Your task to perform on an android device: Open Amazon Image 0: 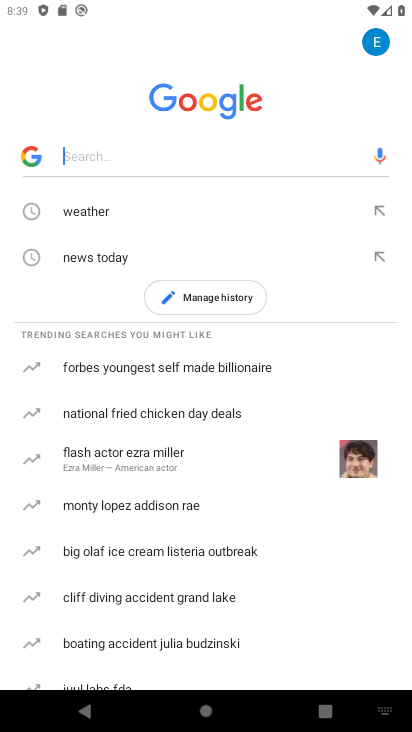
Step 0: press home button
Your task to perform on an android device: Open Amazon Image 1: 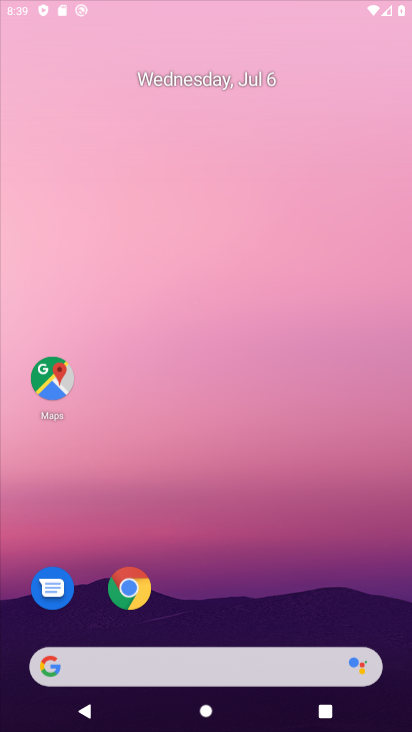
Step 1: drag from (214, 591) to (265, 115)
Your task to perform on an android device: Open Amazon Image 2: 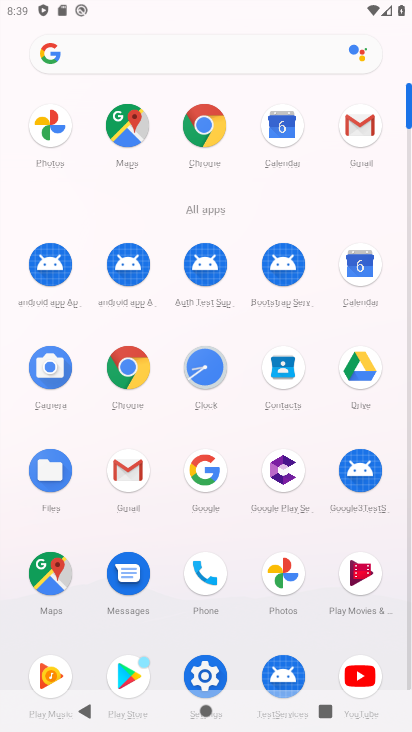
Step 2: click (198, 129)
Your task to perform on an android device: Open Amazon Image 3: 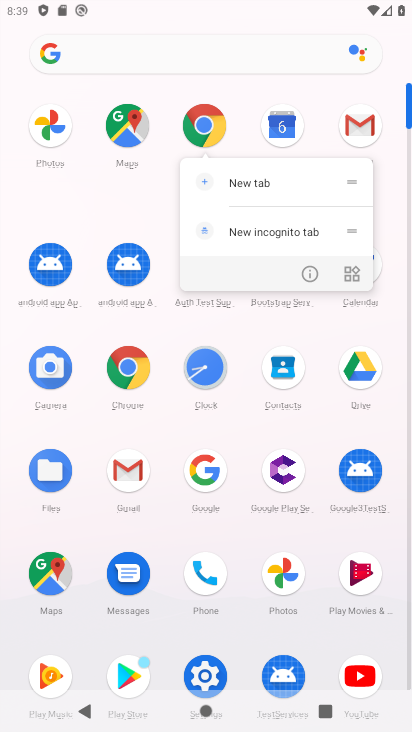
Step 3: click (313, 267)
Your task to perform on an android device: Open Amazon Image 4: 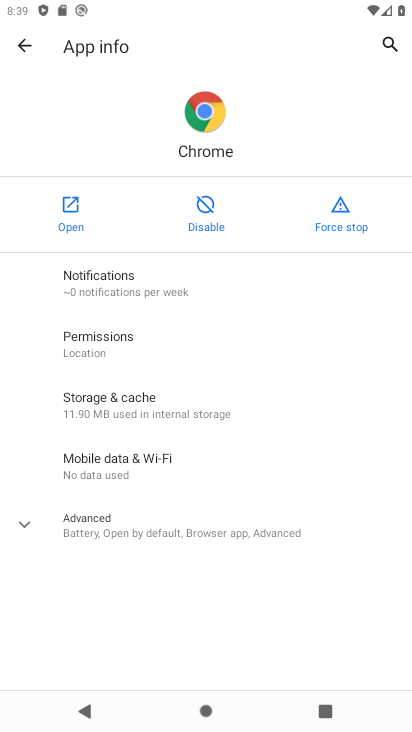
Step 4: click (56, 189)
Your task to perform on an android device: Open Amazon Image 5: 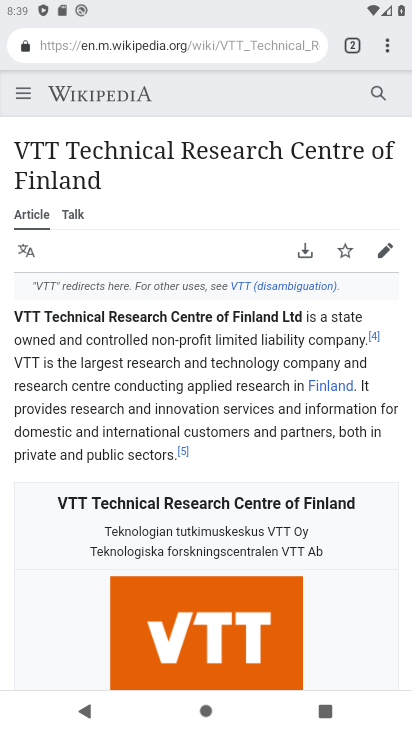
Step 5: click (389, 41)
Your task to perform on an android device: Open Amazon Image 6: 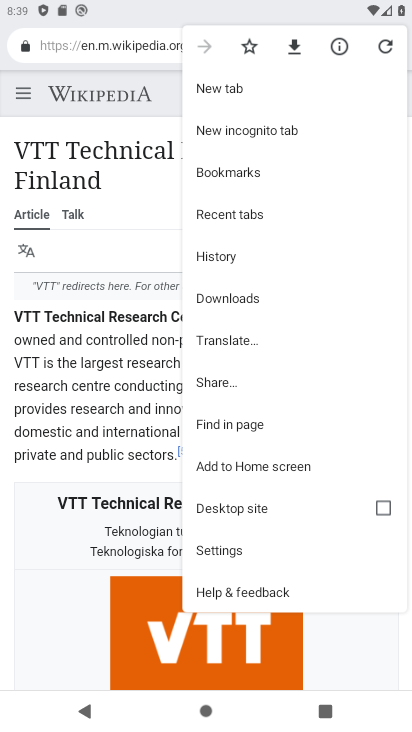
Step 6: click (220, 93)
Your task to perform on an android device: Open Amazon Image 7: 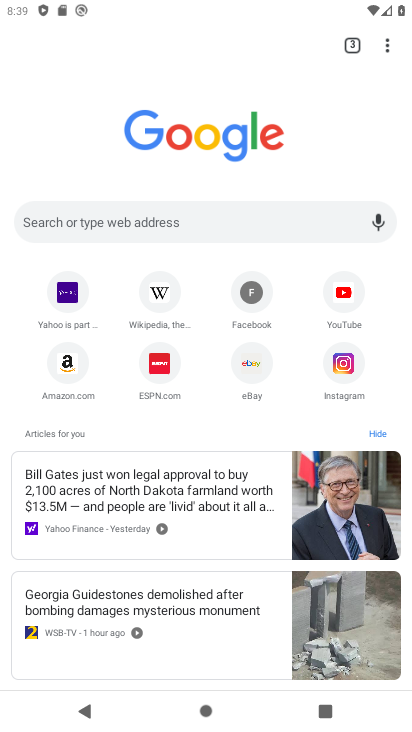
Step 7: click (60, 359)
Your task to perform on an android device: Open Amazon Image 8: 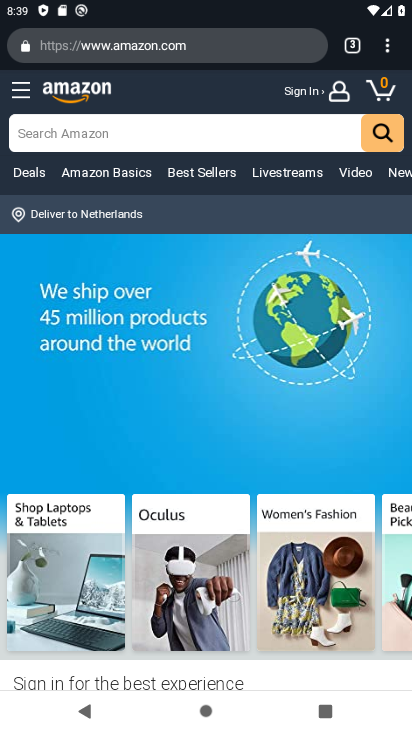
Step 8: task complete